Your task to perform on an android device: open a bookmark in the chrome app Image 0: 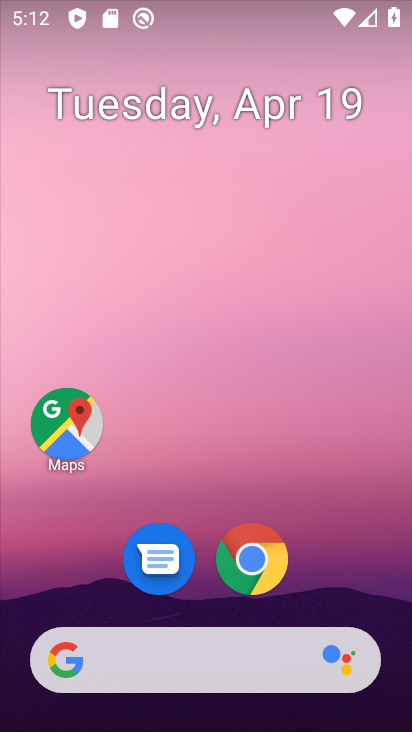
Step 0: click (249, 576)
Your task to perform on an android device: open a bookmark in the chrome app Image 1: 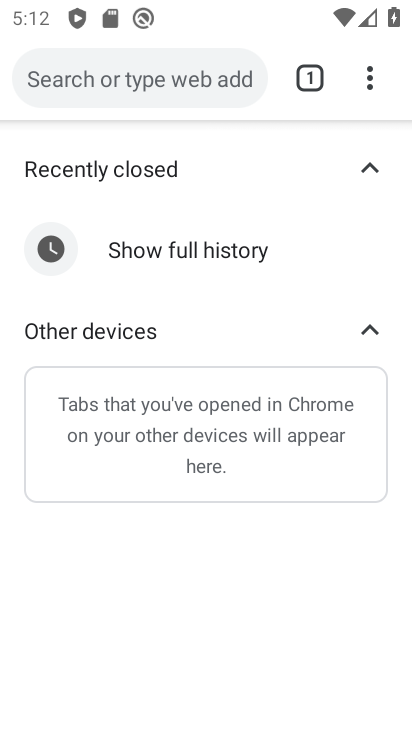
Step 1: click (371, 98)
Your task to perform on an android device: open a bookmark in the chrome app Image 2: 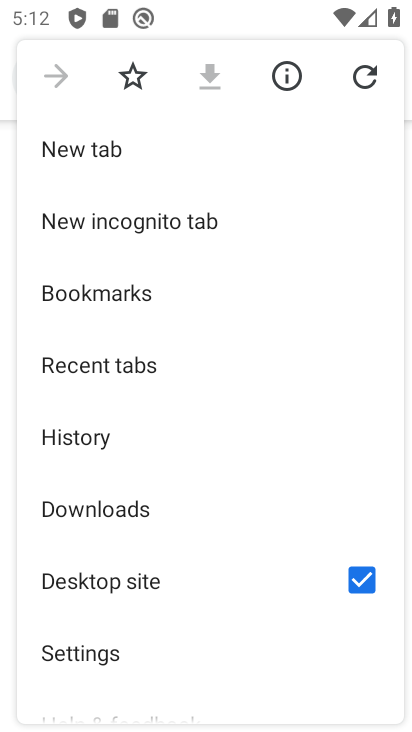
Step 2: click (168, 302)
Your task to perform on an android device: open a bookmark in the chrome app Image 3: 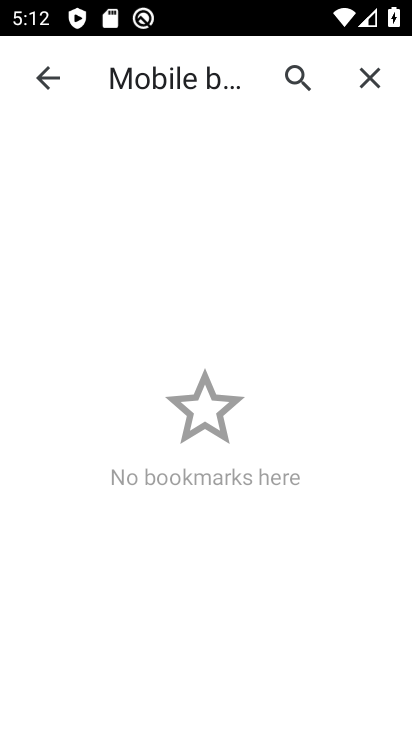
Step 3: task complete